Your task to perform on an android device: What's the weather today? Image 0: 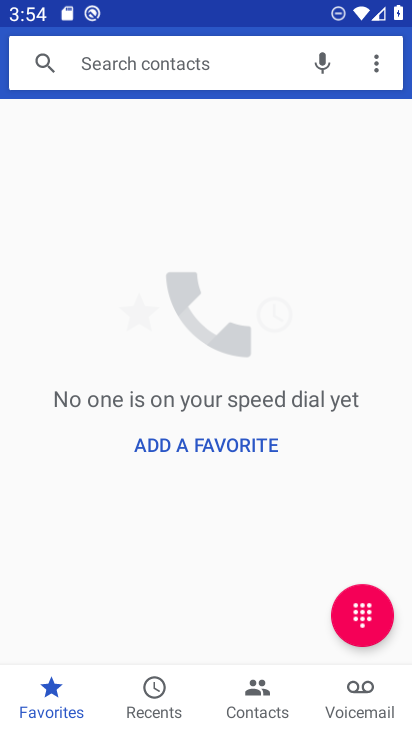
Step 0: press back button
Your task to perform on an android device: What's the weather today? Image 1: 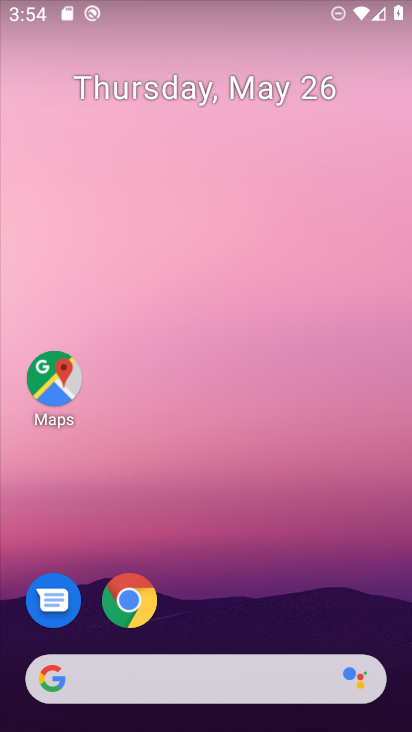
Step 1: drag from (291, 556) to (199, 7)
Your task to perform on an android device: What's the weather today? Image 2: 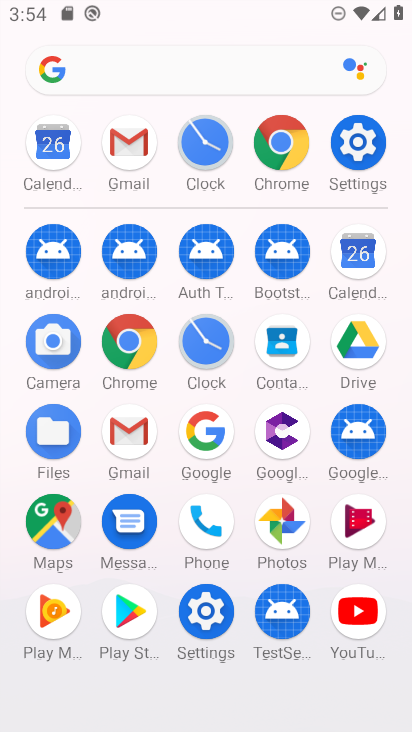
Step 2: click (128, 336)
Your task to perform on an android device: What's the weather today? Image 3: 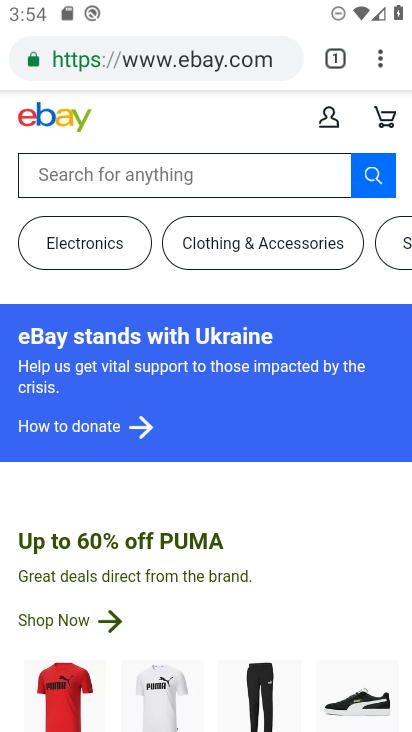
Step 3: click (178, 57)
Your task to perform on an android device: What's the weather today? Image 4: 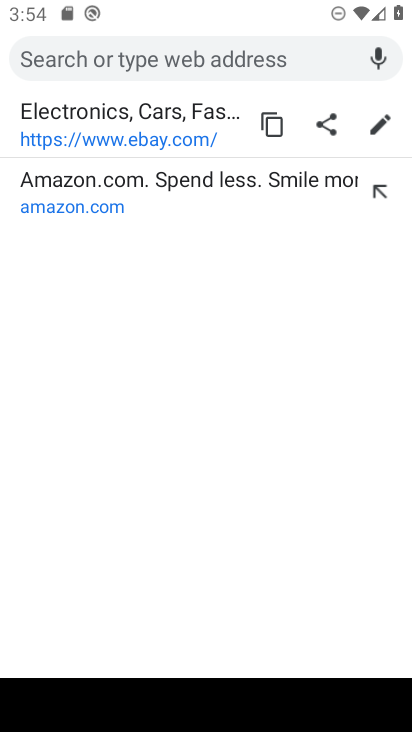
Step 4: type "What's the weather today?"
Your task to perform on an android device: What's the weather today? Image 5: 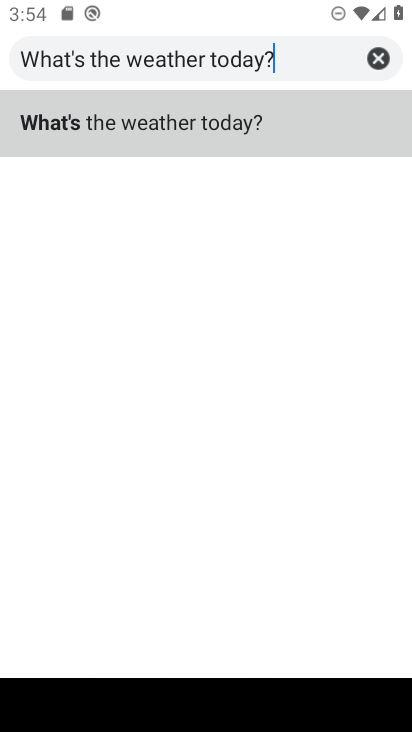
Step 5: type ""
Your task to perform on an android device: What's the weather today? Image 6: 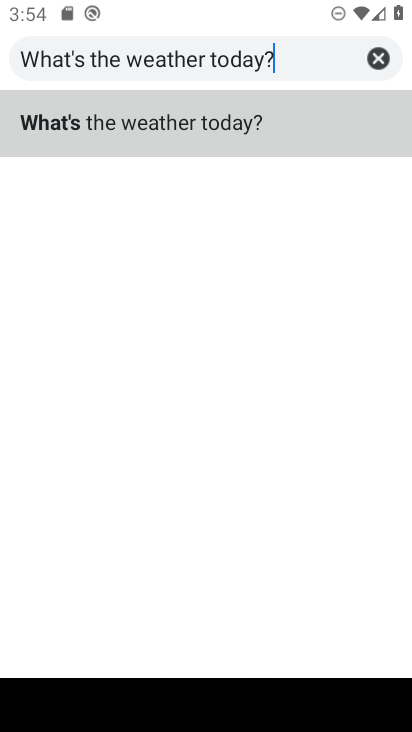
Step 6: click (219, 143)
Your task to perform on an android device: What's the weather today? Image 7: 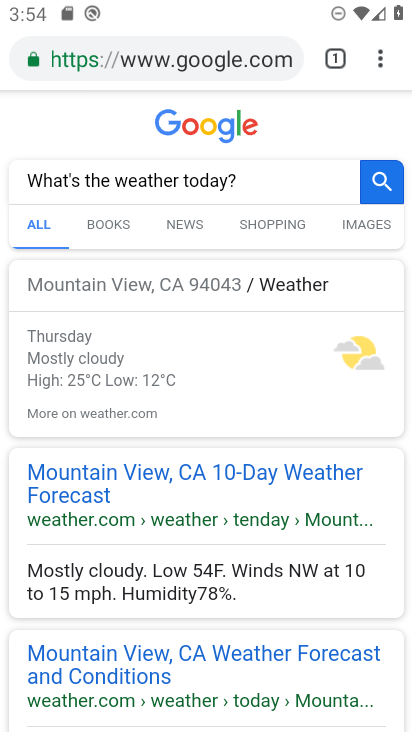
Step 7: task complete